Your task to perform on an android device: all mails in gmail Image 0: 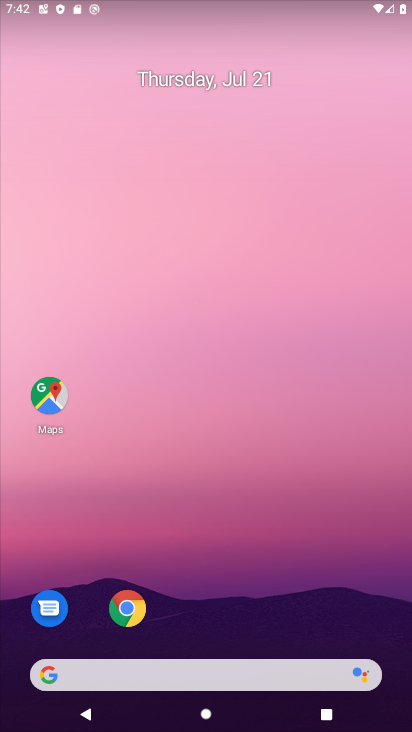
Step 0: drag from (214, 679) to (243, 176)
Your task to perform on an android device: all mails in gmail Image 1: 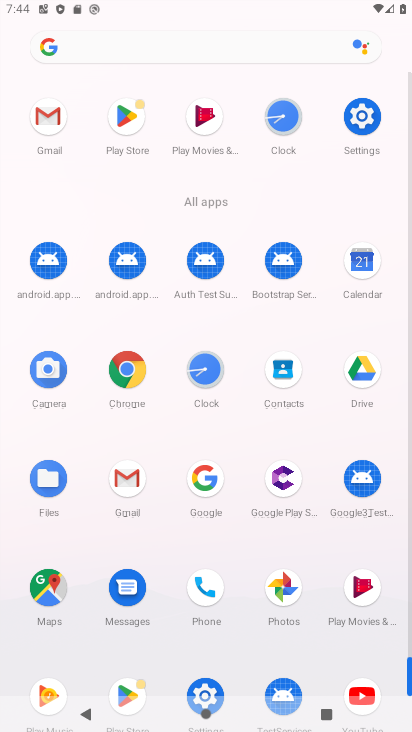
Step 1: click (123, 476)
Your task to perform on an android device: all mails in gmail Image 2: 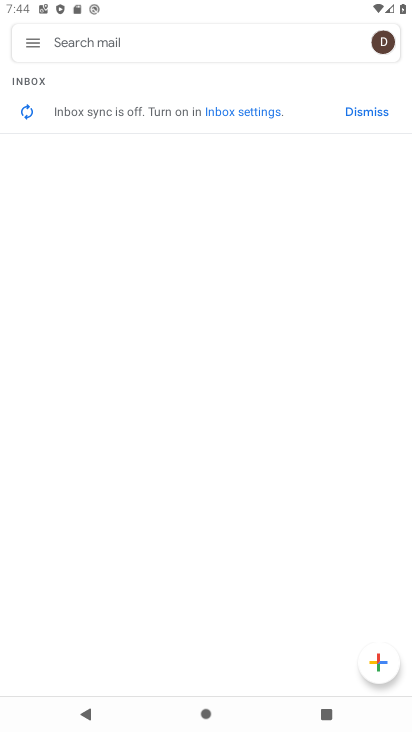
Step 2: click (29, 44)
Your task to perform on an android device: all mails in gmail Image 3: 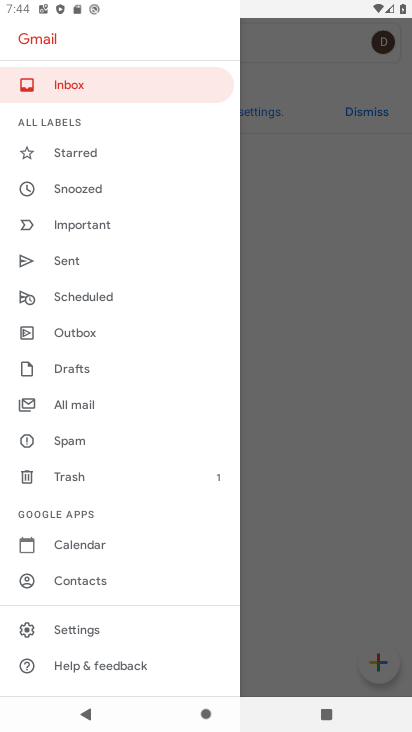
Step 3: click (72, 407)
Your task to perform on an android device: all mails in gmail Image 4: 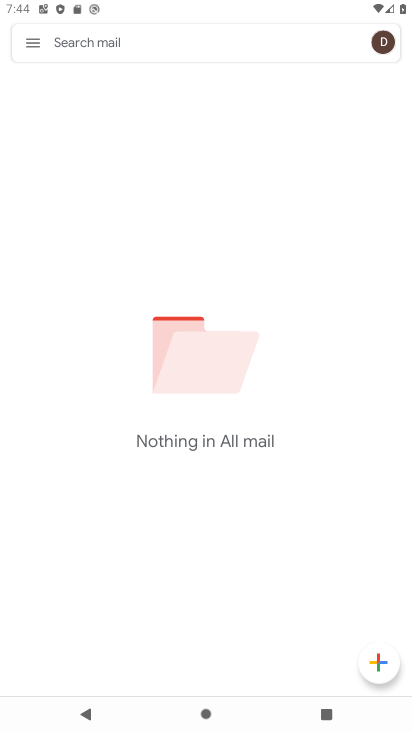
Step 4: task complete